Your task to perform on an android device: Go to accessibility settings Image 0: 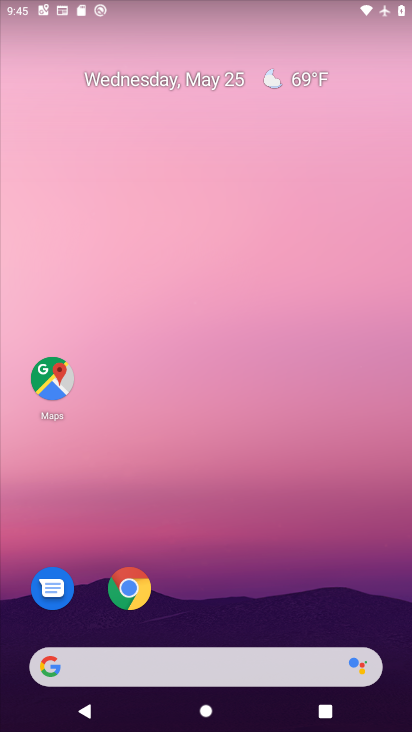
Step 0: drag from (379, 609) to (354, 193)
Your task to perform on an android device: Go to accessibility settings Image 1: 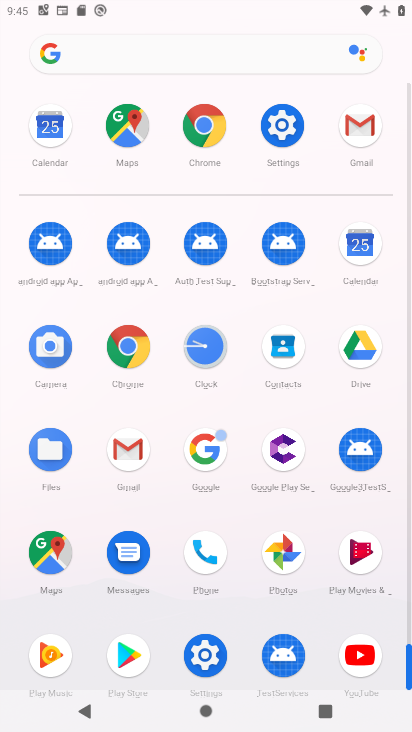
Step 1: click (286, 144)
Your task to perform on an android device: Go to accessibility settings Image 2: 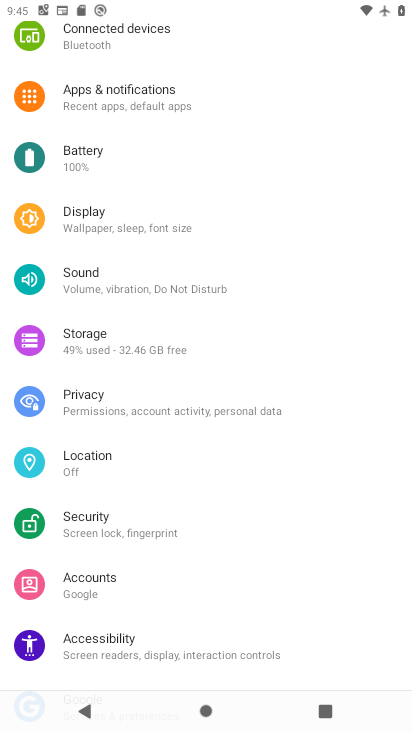
Step 2: drag from (324, 451) to (359, 332)
Your task to perform on an android device: Go to accessibility settings Image 3: 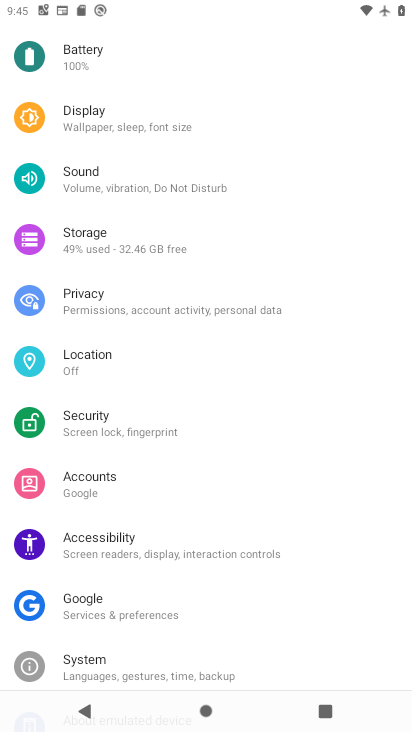
Step 3: drag from (356, 505) to (368, 420)
Your task to perform on an android device: Go to accessibility settings Image 4: 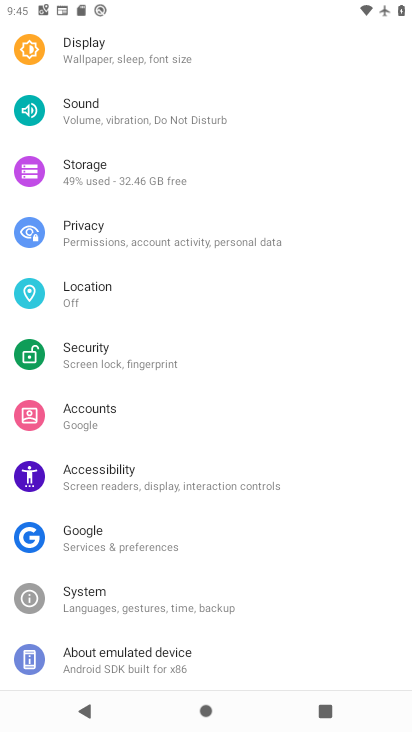
Step 4: drag from (342, 508) to (362, 449)
Your task to perform on an android device: Go to accessibility settings Image 5: 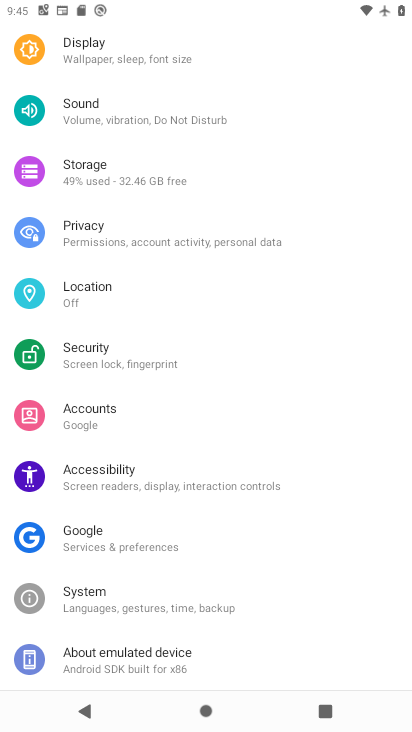
Step 5: drag from (308, 275) to (302, 362)
Your task to perform on an android device: Go to accessibility settings Image 6: 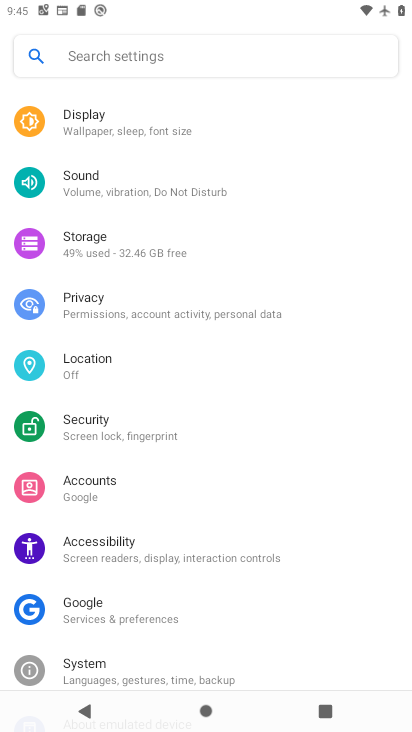
Step 6: drag from (332, 258) to (332, 308)
Your task to perform on an android device: Go to accessibility settings Image 7: 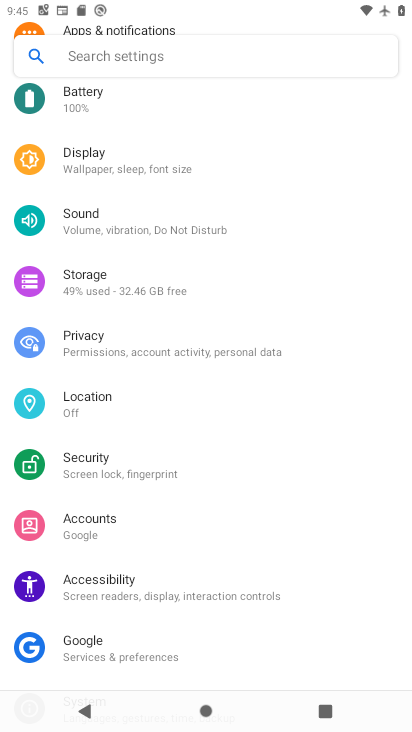
Step 7: drag from (314, 244) to (313, 380)
Your task to perform on an android device: Go to accessibility settings Image 8: 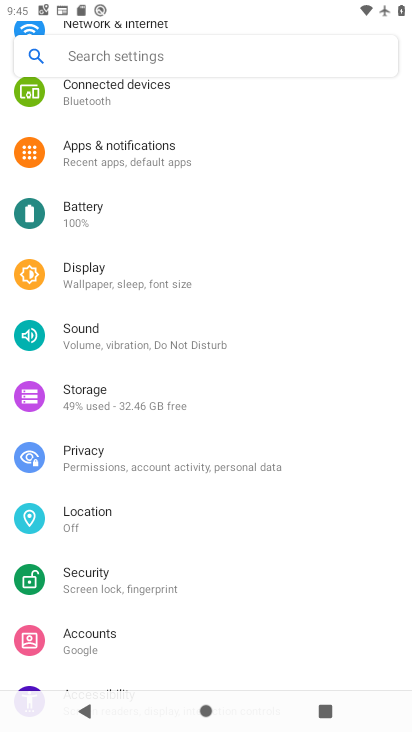
Step 8: drag from (326, 259) to (332, 369)
Your task to perform on an android device: Go to accessibility settings Image 9: 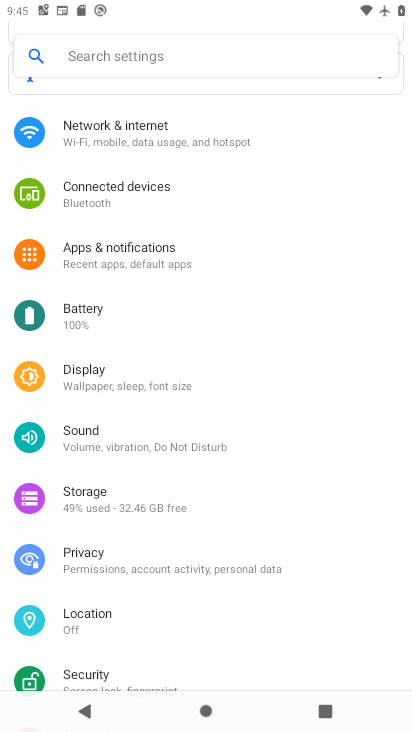
Step 9: drag from (346, 281) to (343, 397)
Your task to perform on an android device: Go to accessibility settings Image 10: 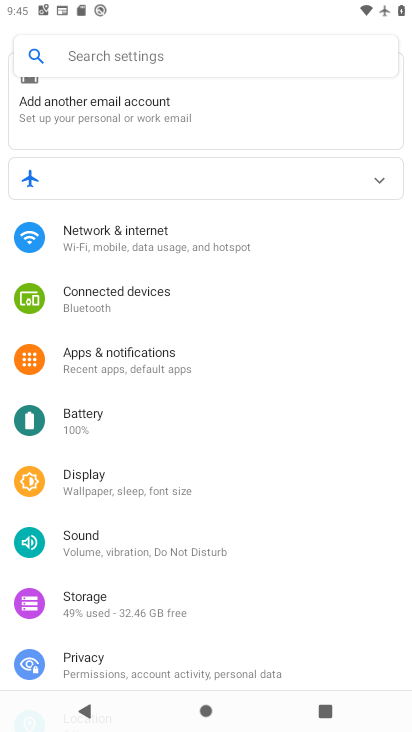
Step 10: drag from (346, 283) to (340, 394)
Your task to perform on an android device: Go to accessibility settings Image 11: 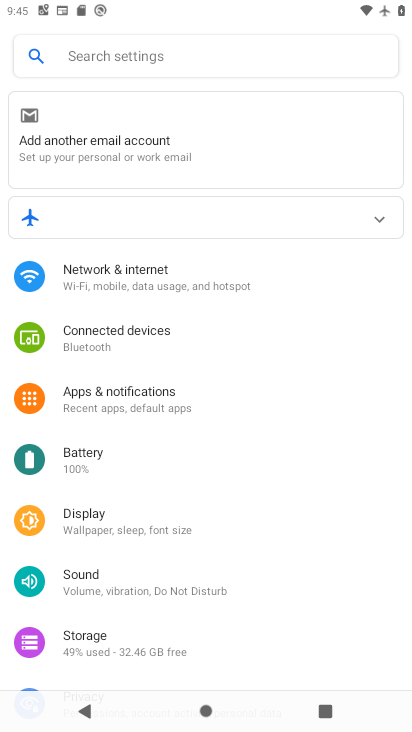
Step 11: drag from (351, 444) to (353, 368)
Your task to perform on an android device: Go to accessibility settings Image 12: 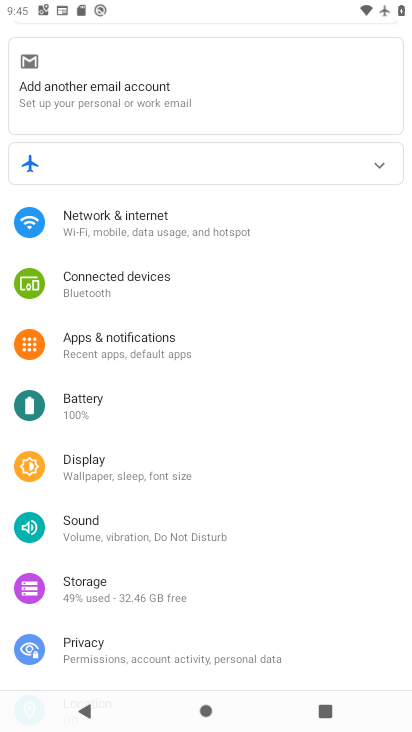
Step 12: drag from (344, 443) to (342, 359)
Your task to perform on an android device: Go to accessibility settings Image 13: 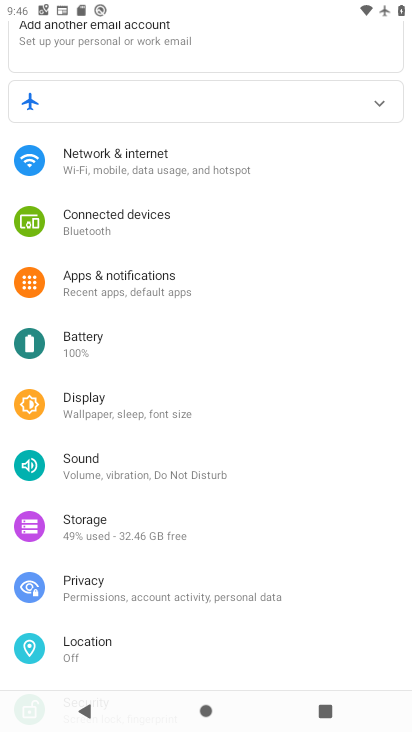
Step 13: drag from (331, 456) to (345, 367)
Your task to perform on an android device: Go to accessibility settings Image 14: 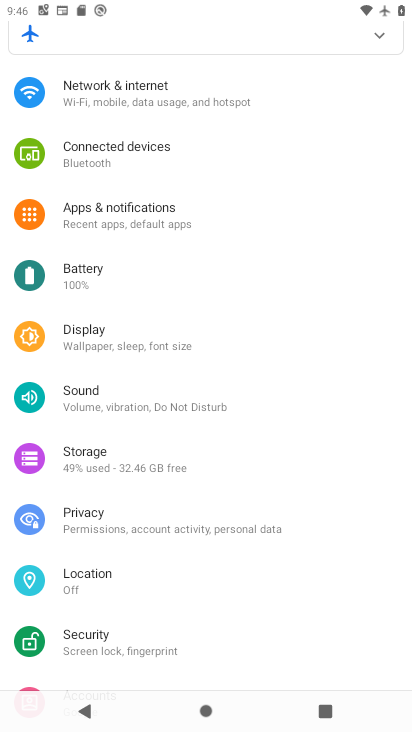
Step 14: drag from (359, 470) to (369, 376)
Your task to perform on an android device: Go to accessibility settings Image 15: 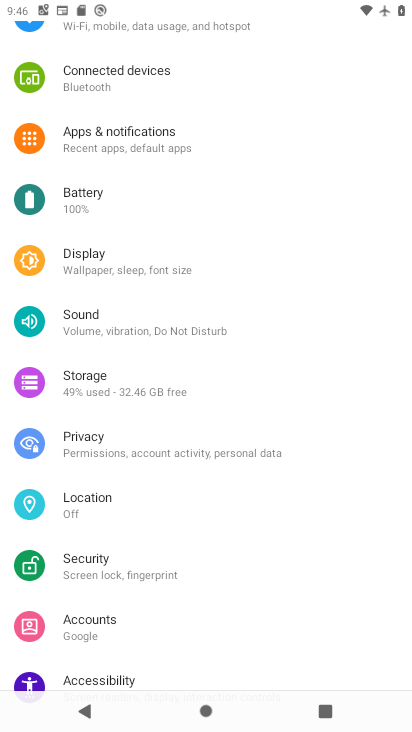
Step 15: drag from (337, 466) to (332, 382)
Your task to perform on an android device: Go to accessibility settings Image 16: 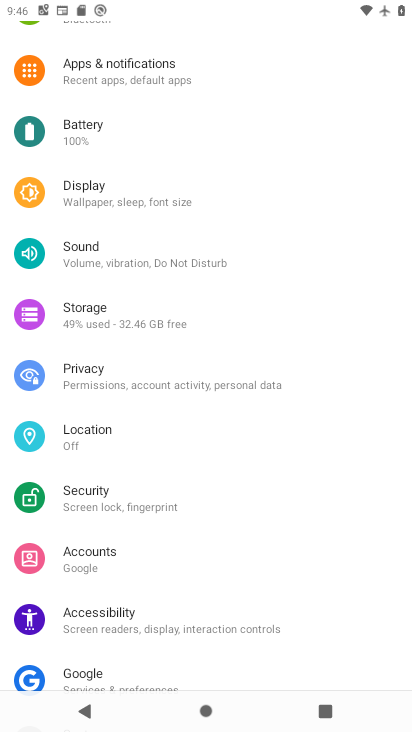
Step 16: drag from (315, 472) to (322, 363)
Your task to perform on an android device: Go to accessibility settings Image 17: 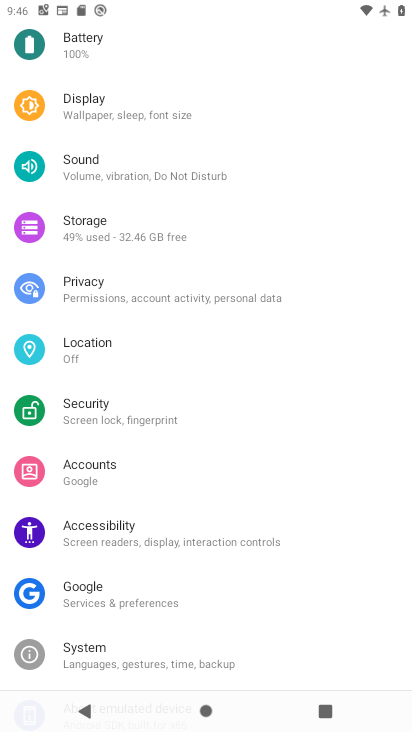
Step 17: drag from (332, 478) to (340, 388)
Your task to perform on an android device: Go to accessibility settings Image 18: 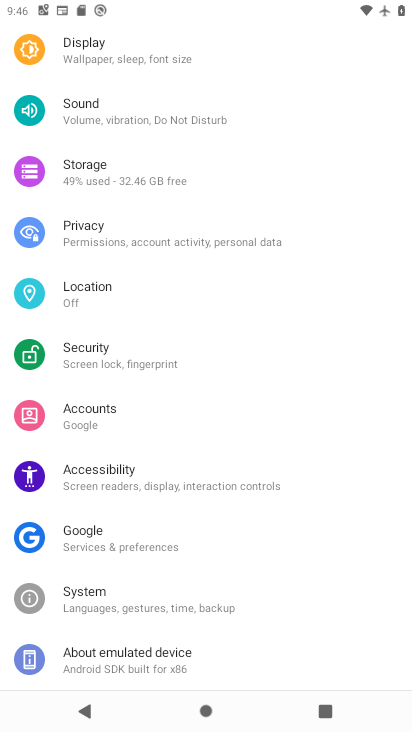
Step 18: drag from (331, 519) to (333, 402)
Your task to perform on an android device: Go to accessibility settings Image 19: 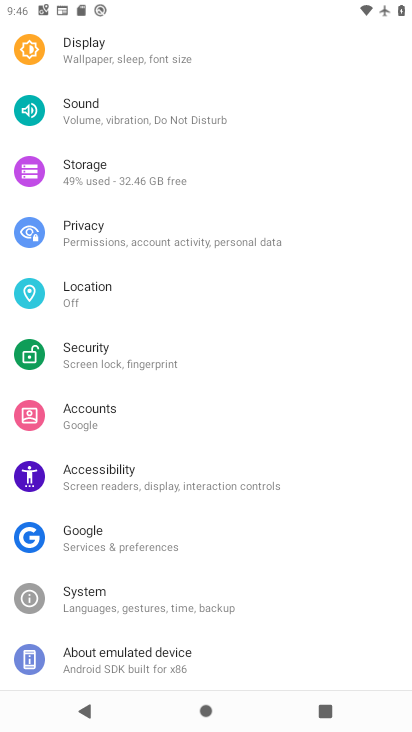
Step 19: click (174, 476)
Your task to perform on an android device: Go to accessibility settings Image 20: 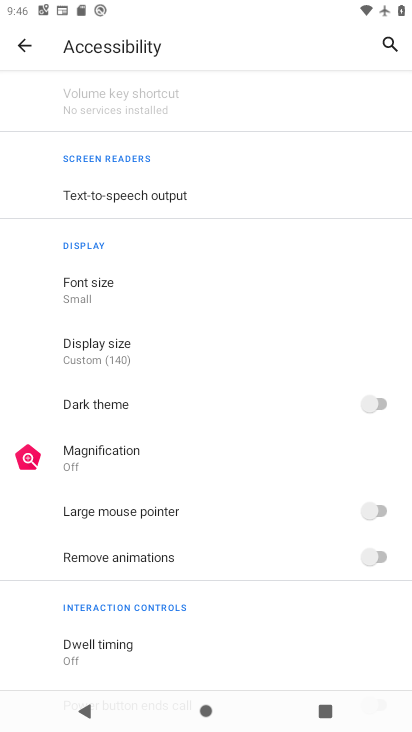
Step 20: task complete